Your task to perform on an android device: Open location settings Image 0: 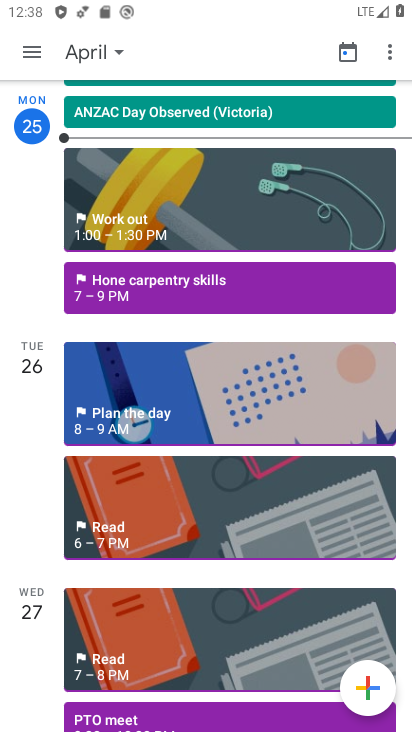
Step 0: press home button
Your task to perform on an android device: Open location settings Image 1: 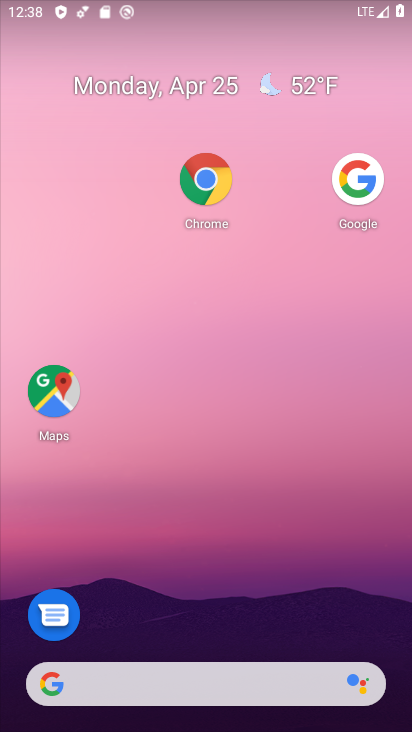
Step 1: drag from (157, 674) to (341, 59)
Your task to perform on an android device: Open location settings Image 2: 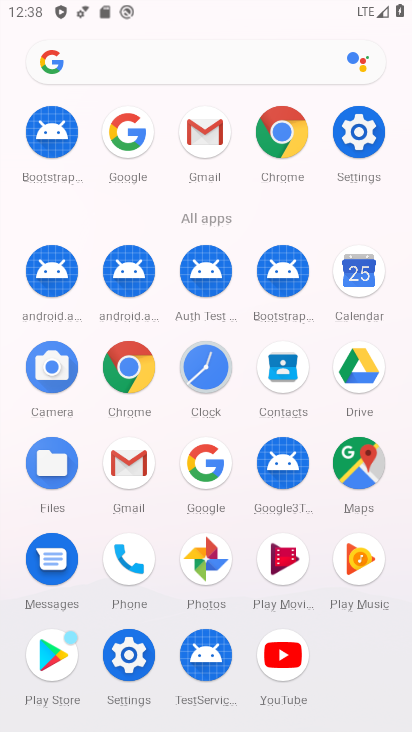
Step 2: click (357, 147)
Your task to perform on an android device: Open location settings Image 3: 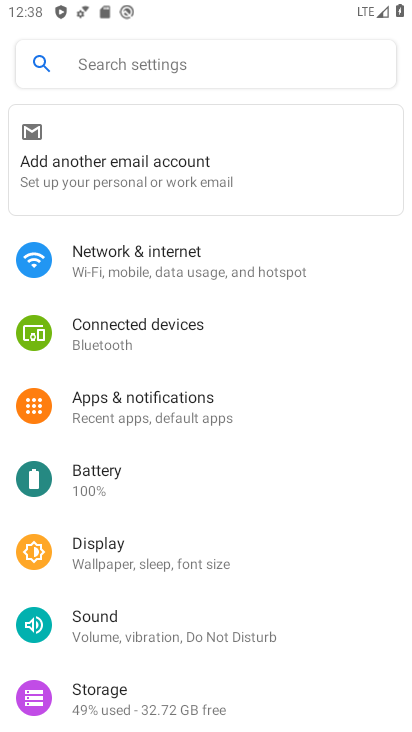
Step 3: drag from (243, 627) to (403, 172)
Your task to perform on an android device: Open location settings Image 4: 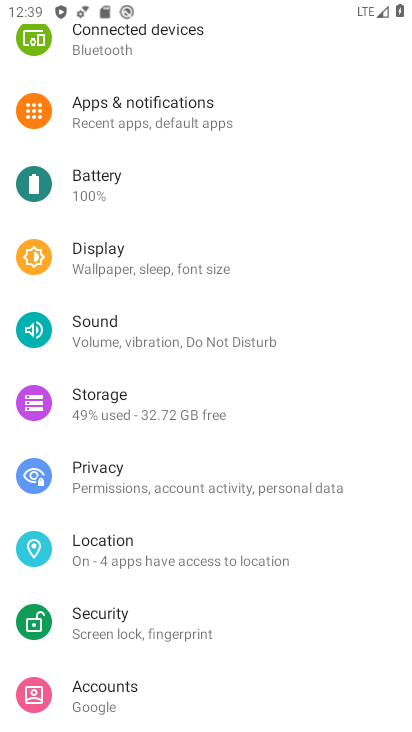
Step 4: click (131, 549)
Your task to perform on an android device: Open location settings Image 5: 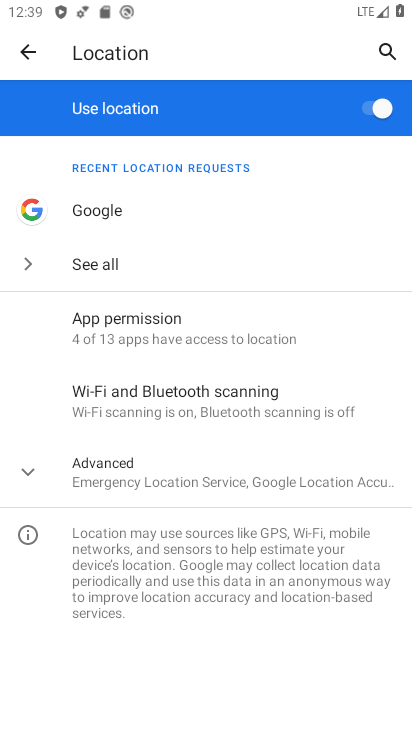
Step 5: task complete